Your task to perform on an android device: turn on priority inbox in the gmail app Image 0: 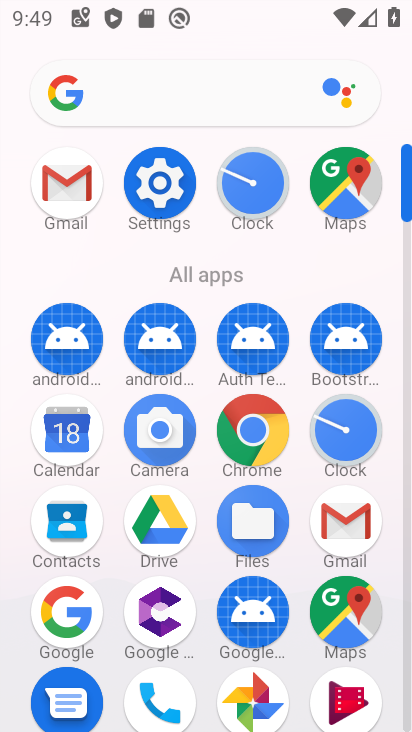
Step 0: press home button
Your task to perform on an android device: turn on priority inbox in the gmail app Image 1: 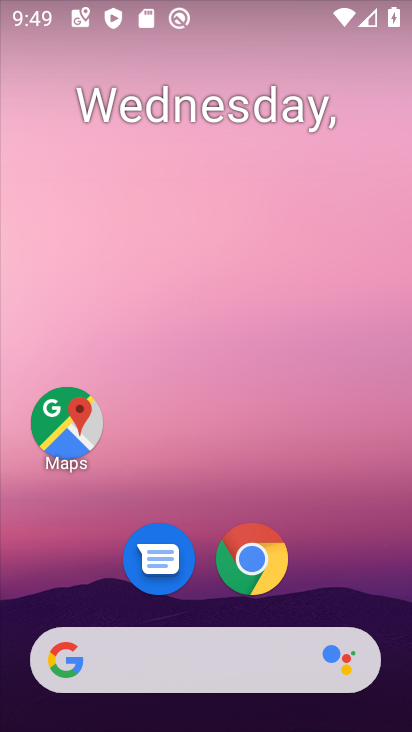
Step 1: drag from (330, 560) to (267, 70)
Your task to perform on an android device: turn on priority inbox in the gmail app Image 2: 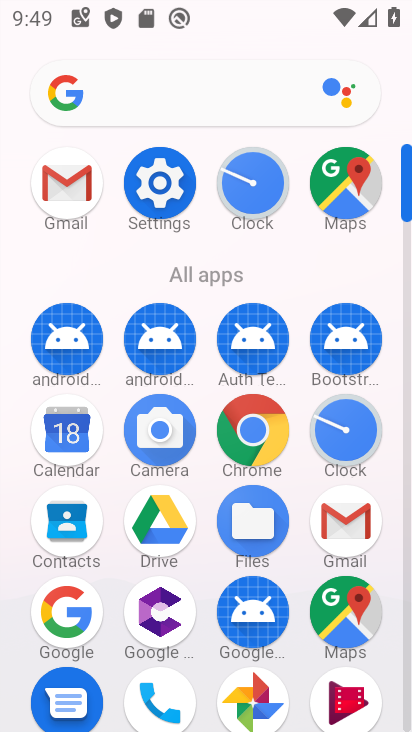
Step 2: click (85, 181)
Your task to perform on an android device: turn on priority inbox in the gmail app Image 3: 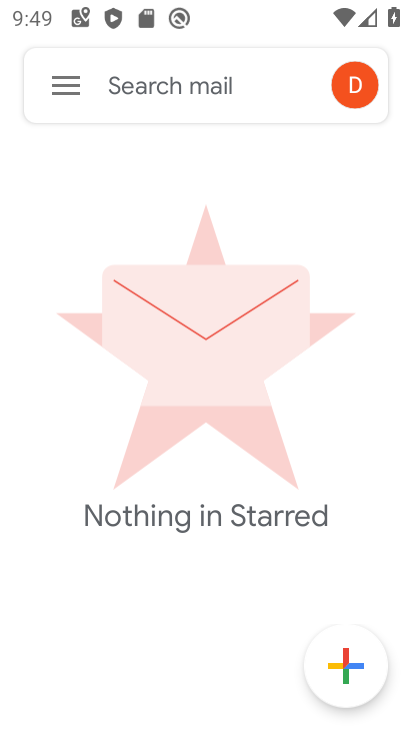
Step 3: click (68, 76)
Your task to perform on an android device: turn on priority inbox in the gmail app Image 4: 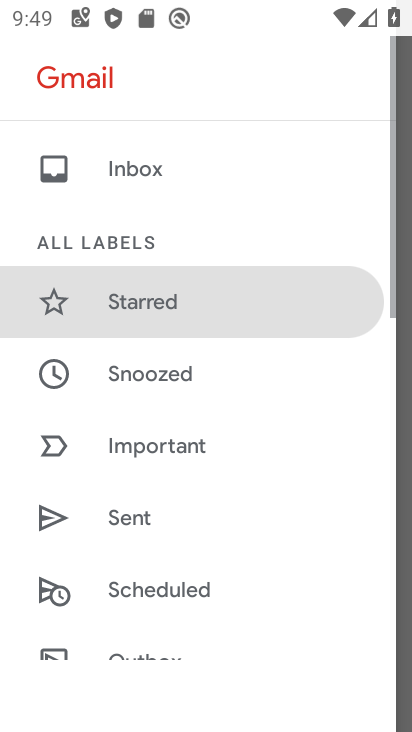
Step 4: drag from (170, 479) to (188, 70)
Your task to perform on an android device: turn on priority inbox in the gmail app Image 5: 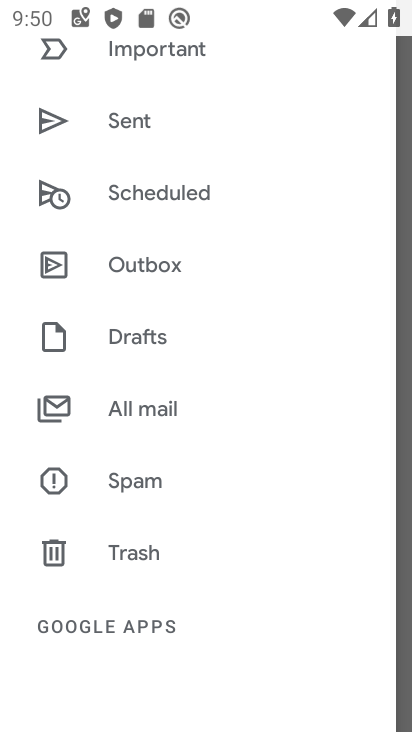
Step 5: drag from (179, 409) to (162, 140)
Your task to perform on an android device: turn on priority inbox in the gmail app Image 6: 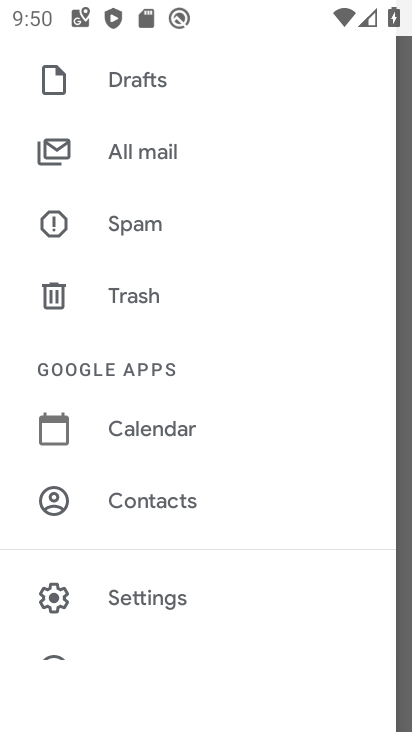
Step 6: click (162, 598)
Your task to perform on an android device: turn on priority inbox in the gmail app Image 7: 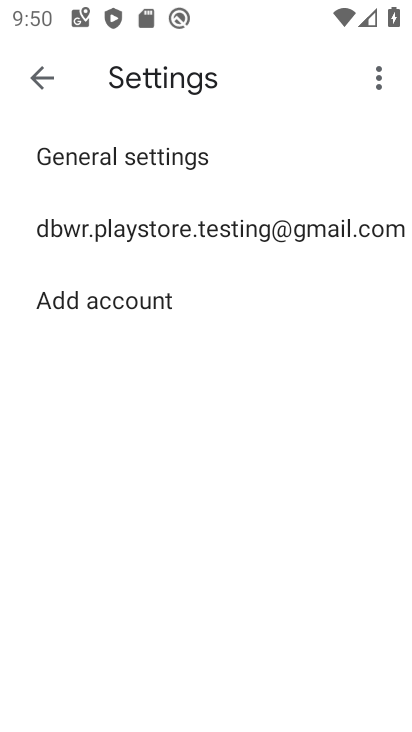
Step 7: click (283, 221)
Your task to perform on an android device: turn on priority inbox in the gmail app Image 8: 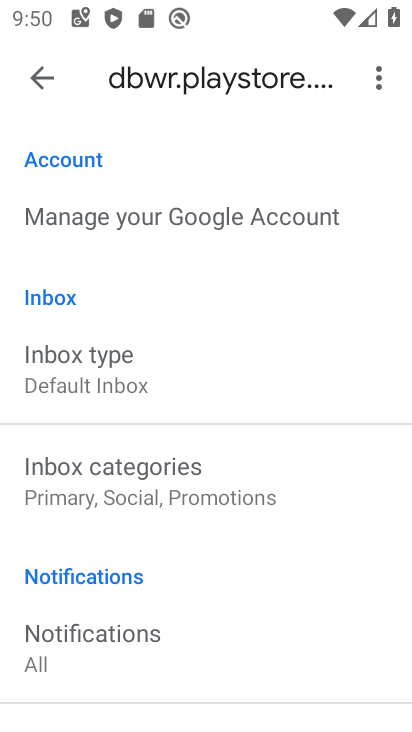
Step 8: click (112, 373)
Your task to perform on an android device: turn on priority inbox in the gmail app Image 9: 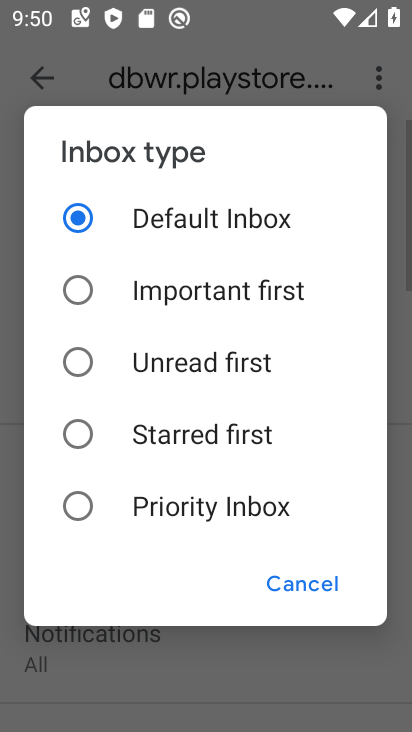
Step 9: click (121, 490)
Your task to perform on an android device: turn on priority inbox in the gmail app Image 10: 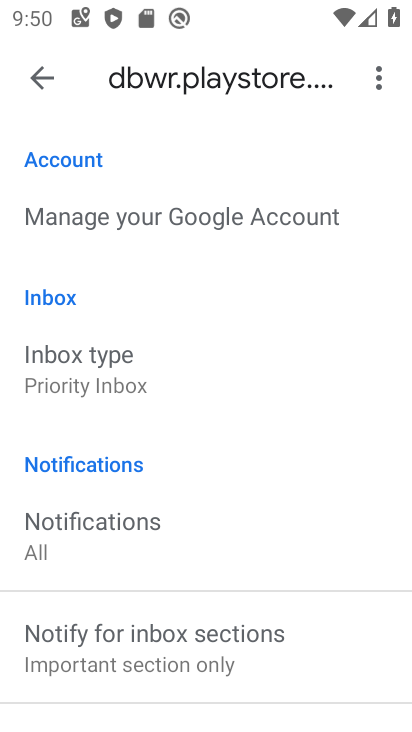
Step 10: task complete